Your task to perform on an android device: Find coffee shops on Maps Image 0: 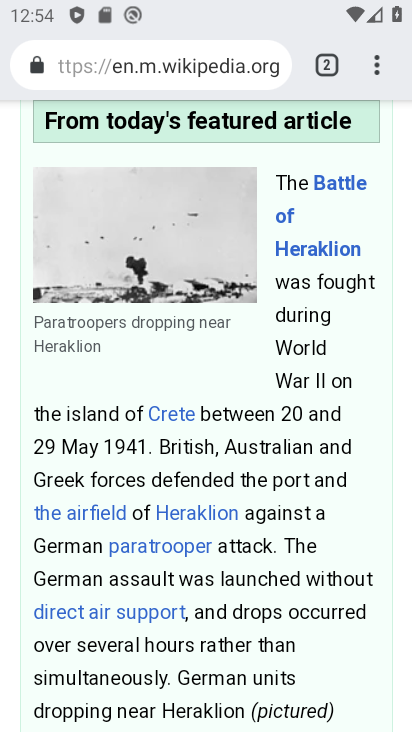
Step 0: press home button
Your task to perform on an android device: Find coffee shops on Maps Image 1: 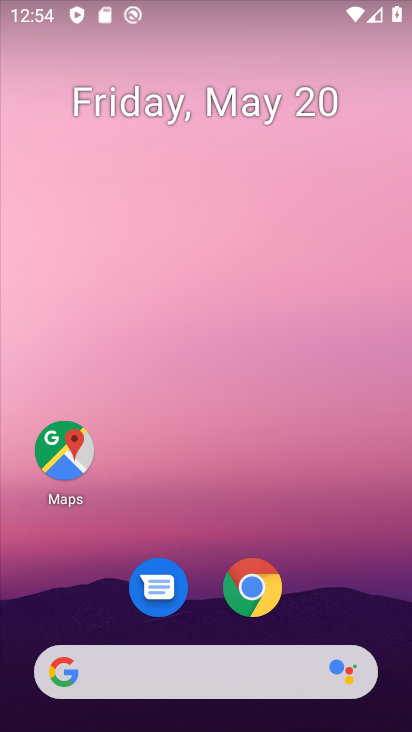
Step 1: click (60, 461)
Your task to perform on an android device: Find coffee shops on Maps Image 2: 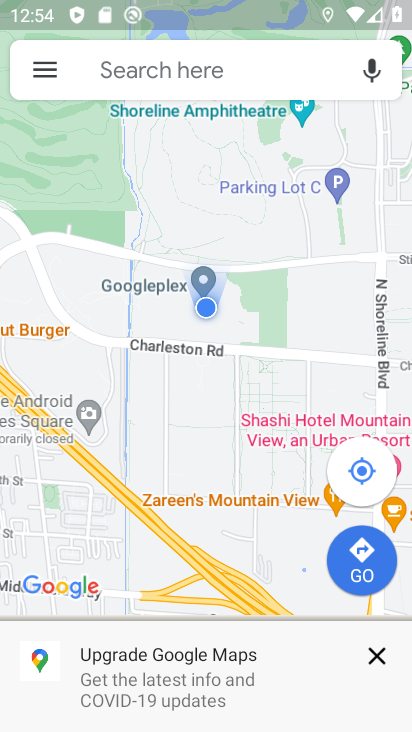
Step 2: click (115, 67)
Your task to perform on an android device: Find coffee shops on Maps Image 3: 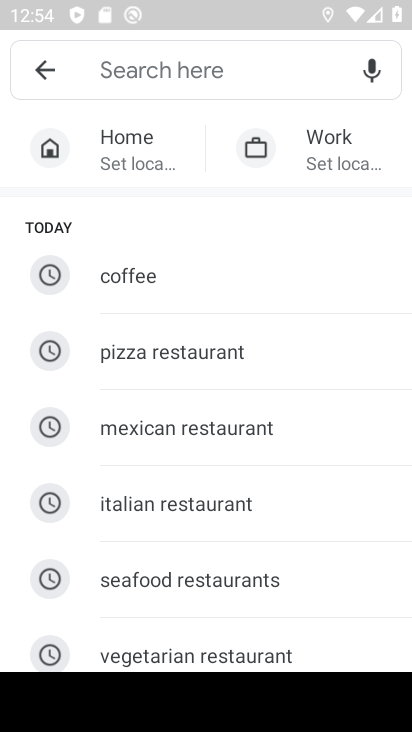
Step 3: click (128, 282)
Your task to perform on an android device: Find coffee shops on Maps Image 4: 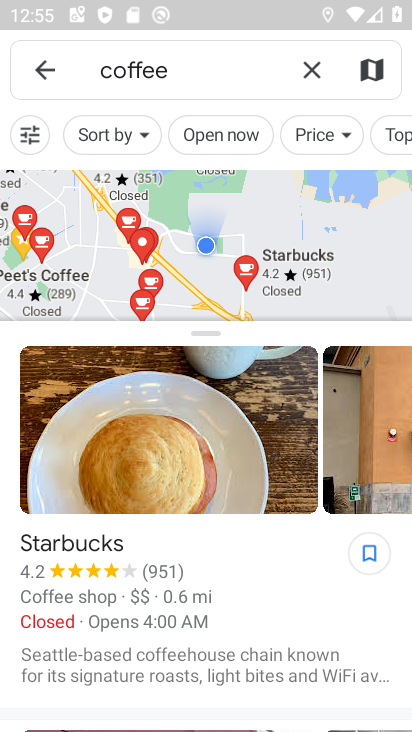
Step 4: task complete